Your task to perform on an android device: change timer sound Image 0: 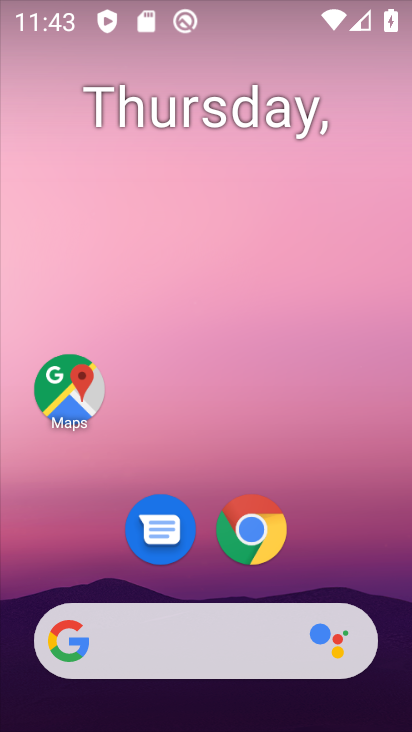
Step 0: drag from (346, 536) to (305, 64)
Your task to perform on an android device: change timer sound Image 1: 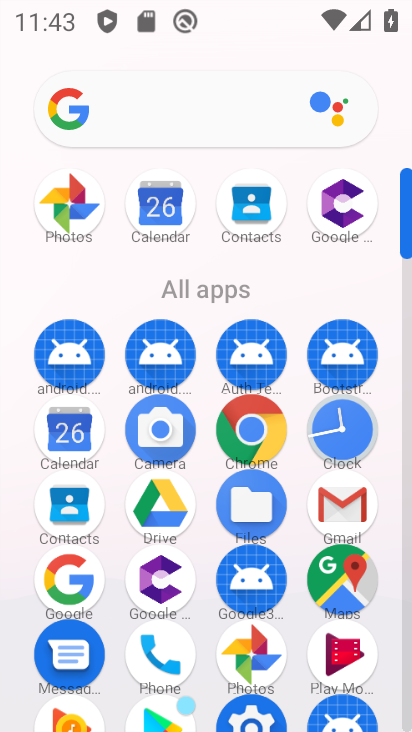
Step 1: click (358, 438)
Your task to perform on an android device: change timer sound Image 2: 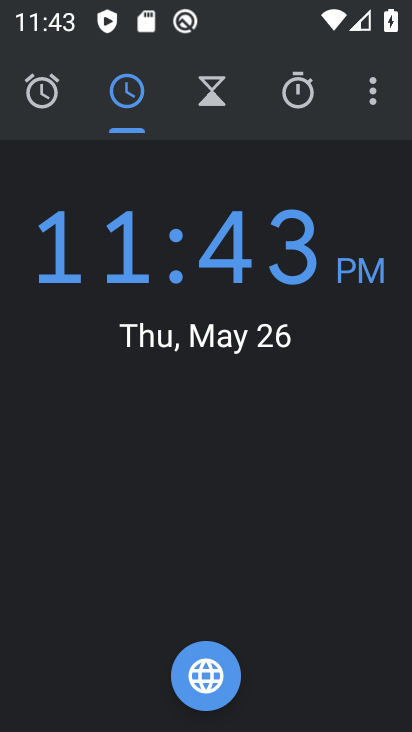
Step 2: click (373, 77)
Your task to perform on an android device: change timer sound Image 3: 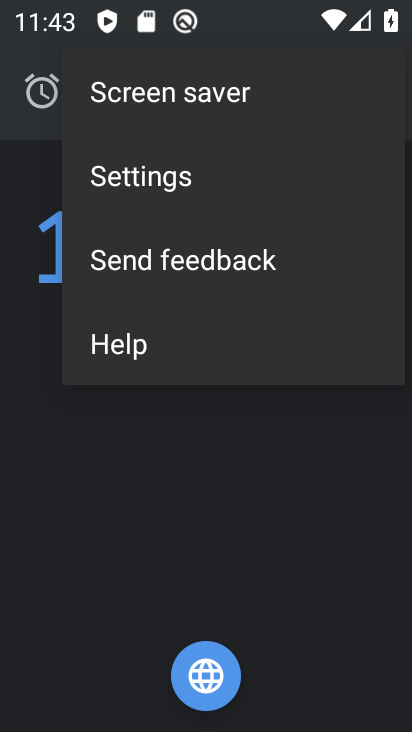
Step 3: click (215, 185)
Your task to perform on an android device: change timer sound Image 4: 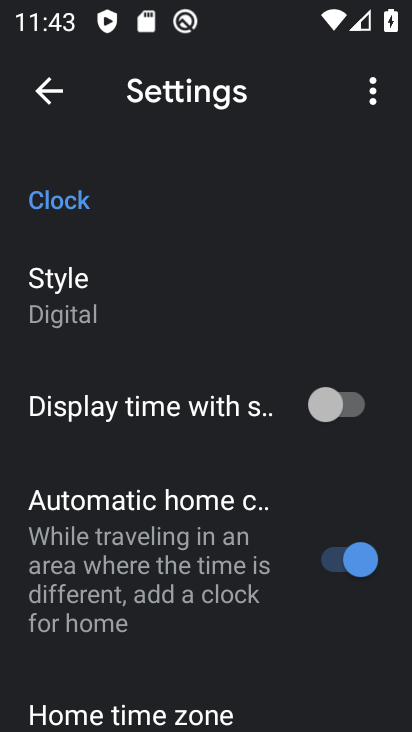
Step 4: drag from (231, 577) to (205, 252)
Your task to perform on an android device: change timer sound Image 5: 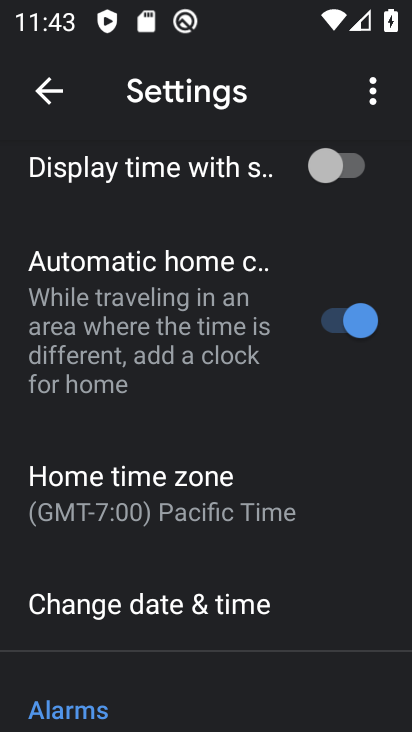
Step 5: drag from (222, 622) to (297, 232)
Your task to perform on an android device: change timer sound Image 6: 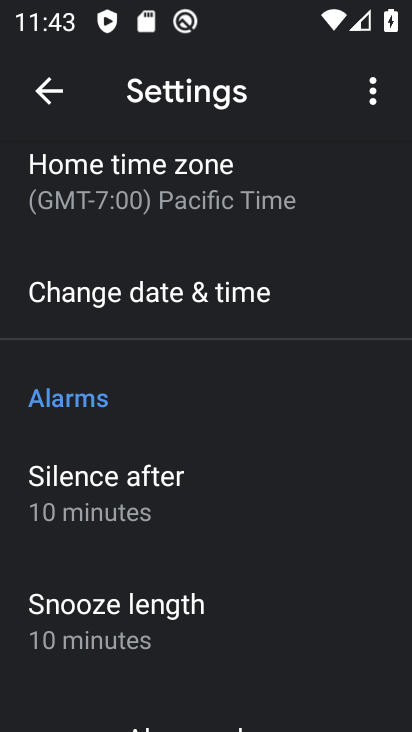
Step 6: drag from (244, 642) to (281, 240)
Your task to perform on an android device: change timer sound Image 7: 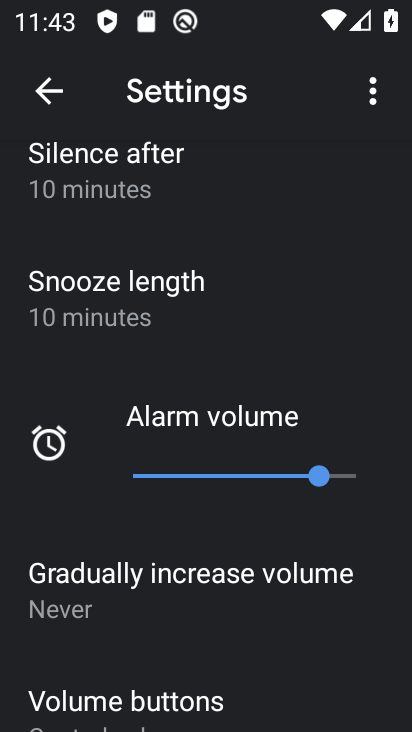
Step 7: drag from (203, 658) to (266, 241)
Your task to perform on an android device: change timer sound Image 8: 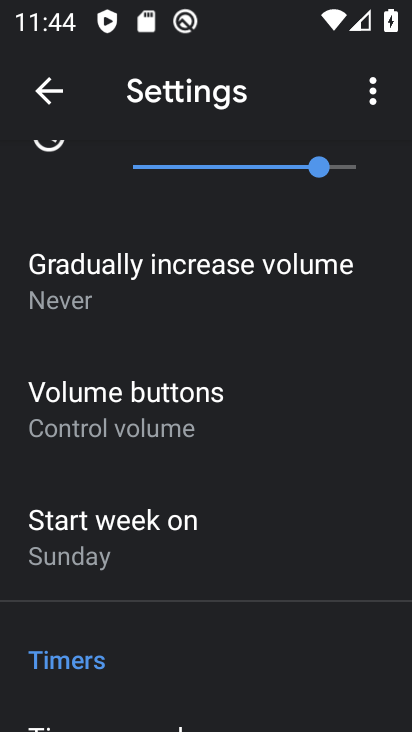
Step 8: drag from (210, 607) to (250, 222)
Your task to perform on an android device: change timer sound Image 9: 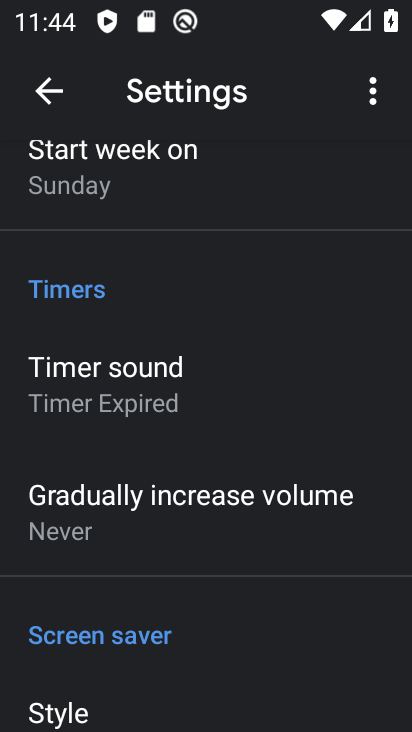
Step 9: click (166, 387)
Your task to perform on an android device: change timer sound Image 10: 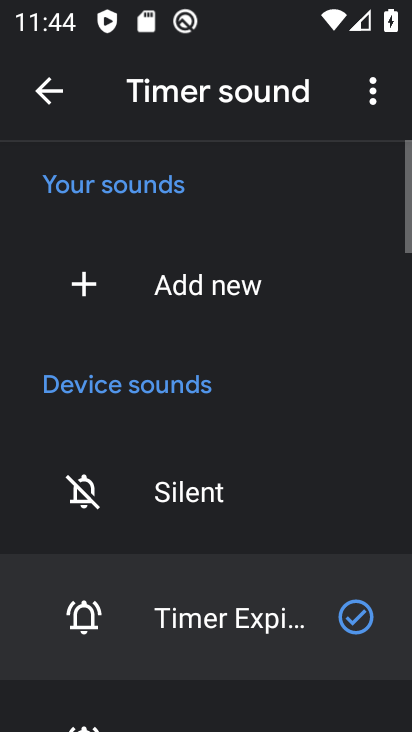
Step 10: drag from (190, 610) to (224, 310)
Your task to perform on an android device: change timer sound Image 11: 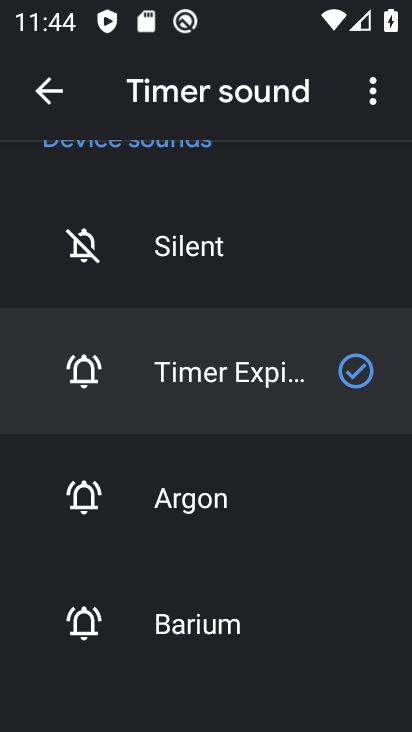
Step 11: click (201, 480)
Your task to perform on an android device: change timer sound Image 12: 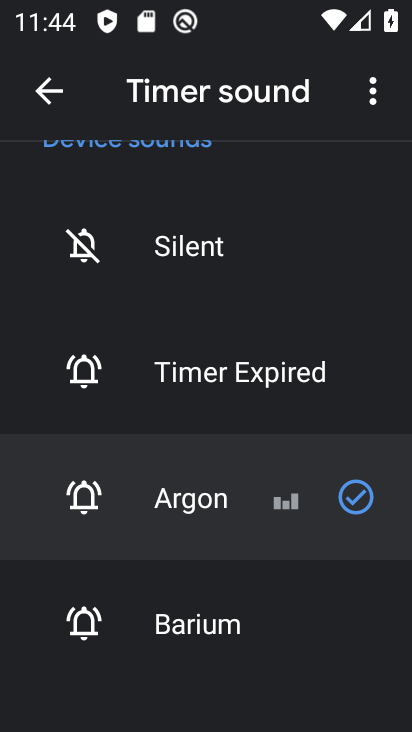
Step 12: task complete